Your task to perform on an android device: toggle pop-ups in chrome Image 0: 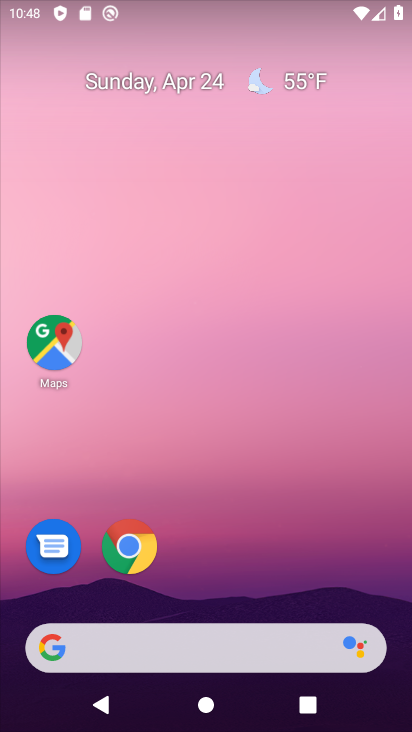
Step 0: click (130, 544)
Your task to perform on an android device: toggle pop-ups in chrome Image 1: 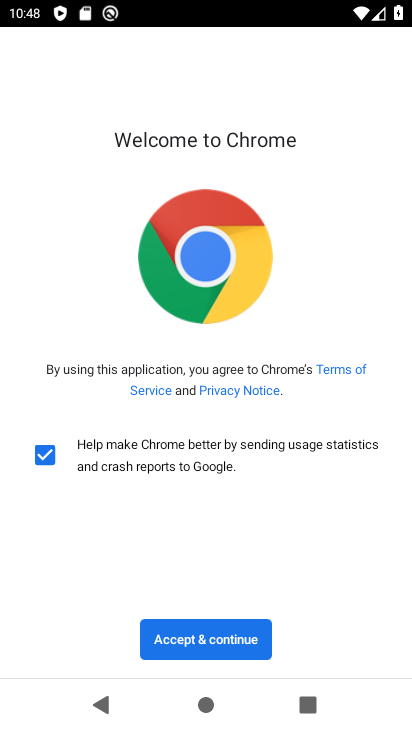
Step 1: click (185, 642)
Your task to perform on an android device: toggle pop-ups in chrome Image 2: 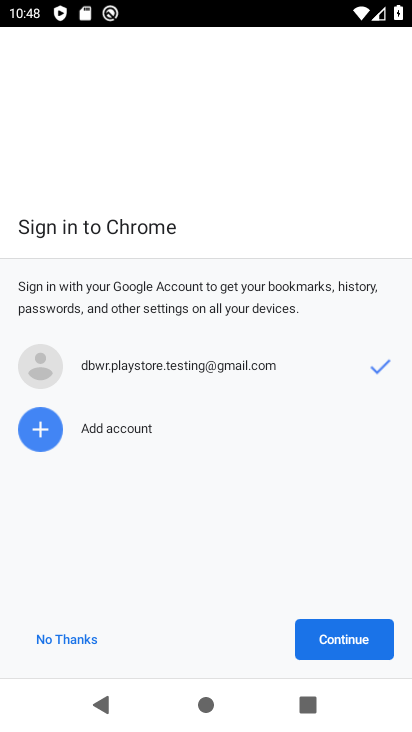
Step 2: click (339, 640)
Your task to perform on an android device: toggle pop-ups in chrome Image 3: 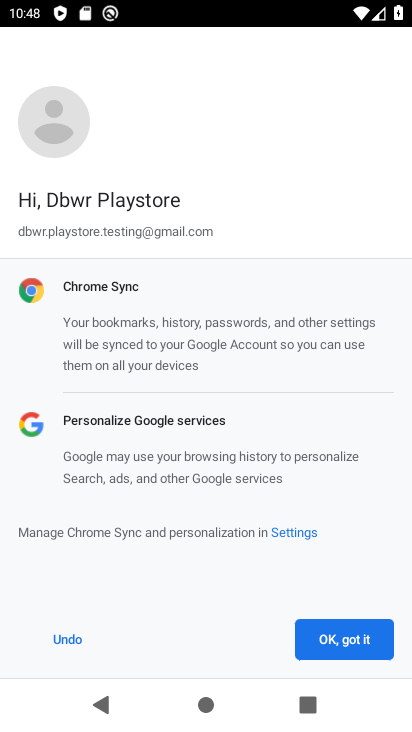
Step 3: click (339, 640)
Your task to perform on an android device: toggle pop-ups in chrome Image 4: 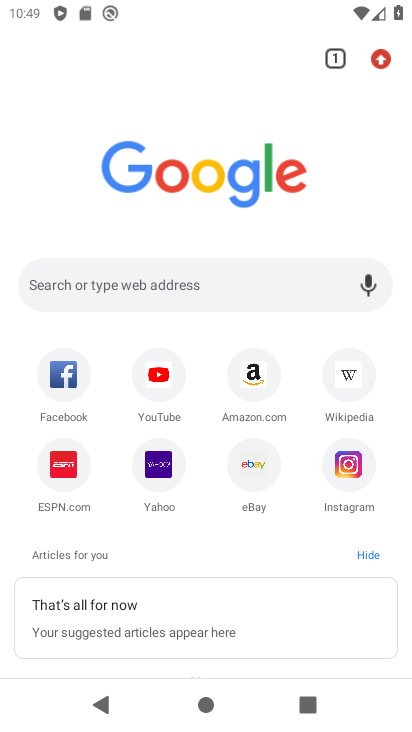
Step 4: click (381, 56)
Your task to perform on an android device: toggle pop-ups in chrome Image 5: 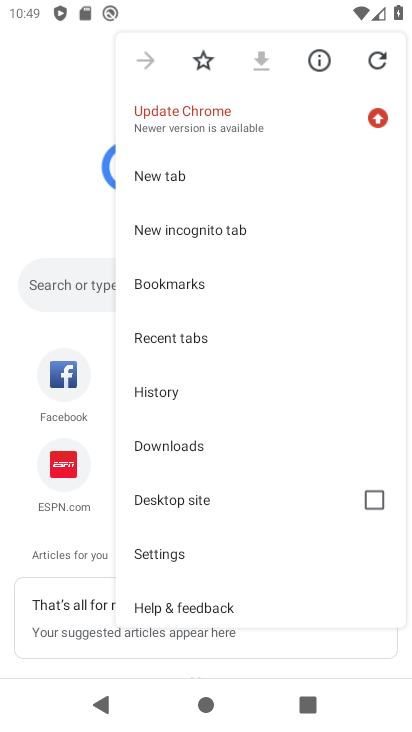
Step 5: click (159, 558)
Your task to perform on an android device: toggle pop-ups in chrome Image 6: 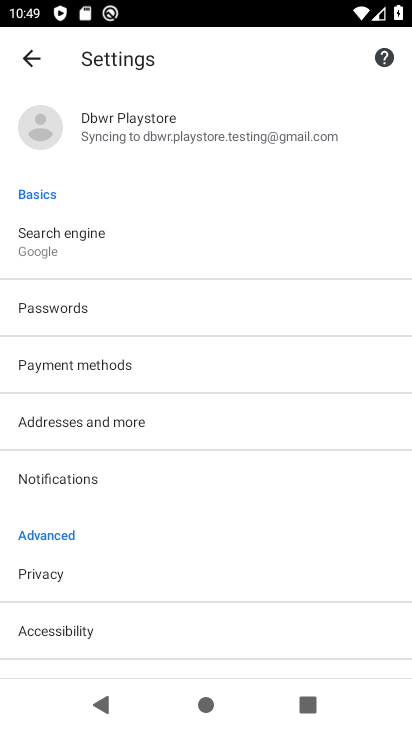
Step 6: drag from (144, 581) to (190, 508)
Your task to perform on an android device: toggle pop-ups in chrome Image 7: 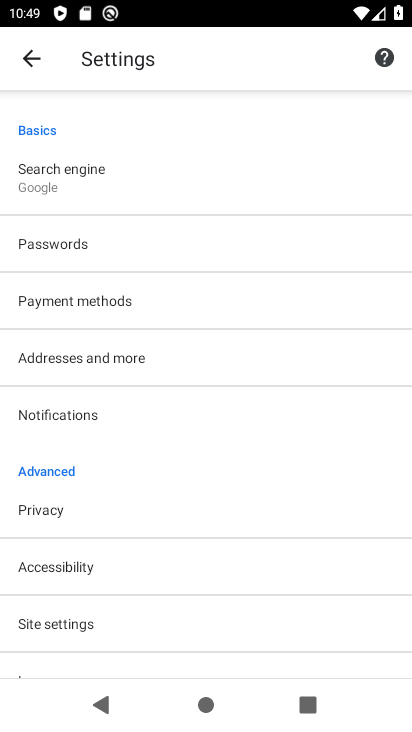
Step 7: drag from (138, 597) to (181, 511)
Your task to perform on an android device: toggle pop-ups in chrome Image 8: 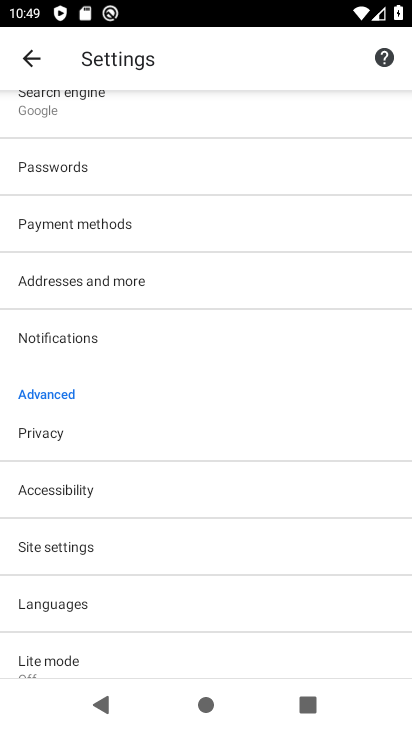
Step 8: click (74, 547)
Your task to perform on an android device: toggle pop-ups in chrome Image 9: 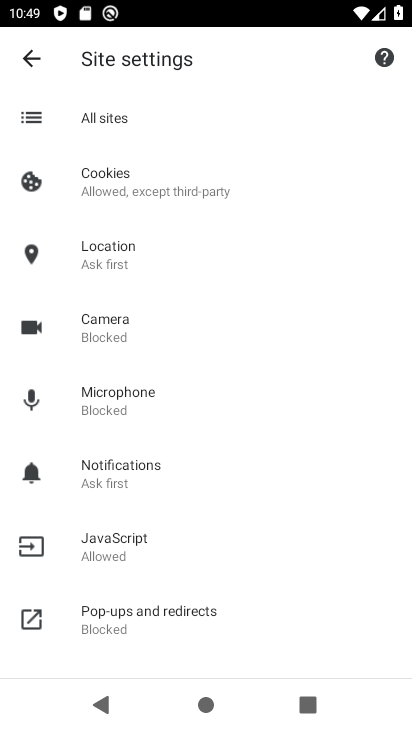
Step 9: click (162, 626)
Your task to perform on an android device: toggle pop-ups in chrome Image 10: 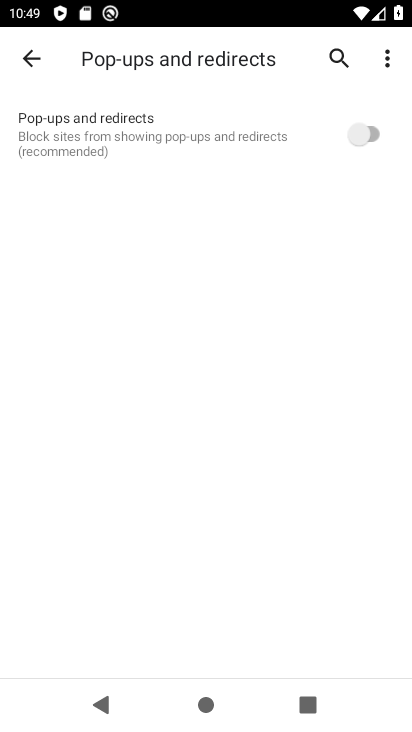
Step 10: click (360, 139)
Your task to perform on an android device: toggle pop-ups in chrome Image 11: 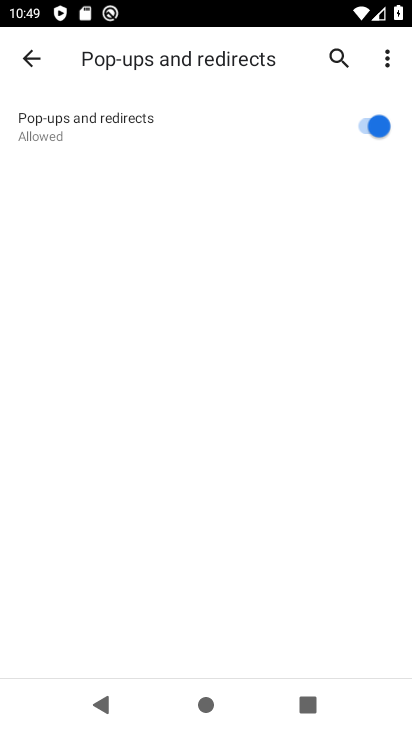
Step 11: task complete